Your task to perform on an android device: turn off improve location accuracy Image 0: 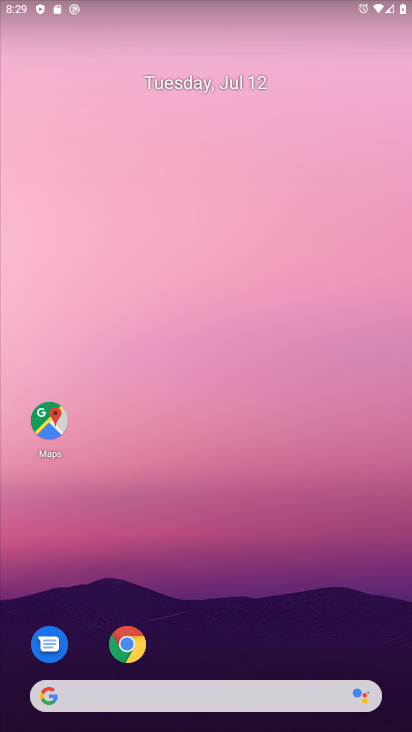
Step 0: drag from (25, 712) to (356, 54)
Your task to perform on an android device: turn off improve location accuracy Image 1: 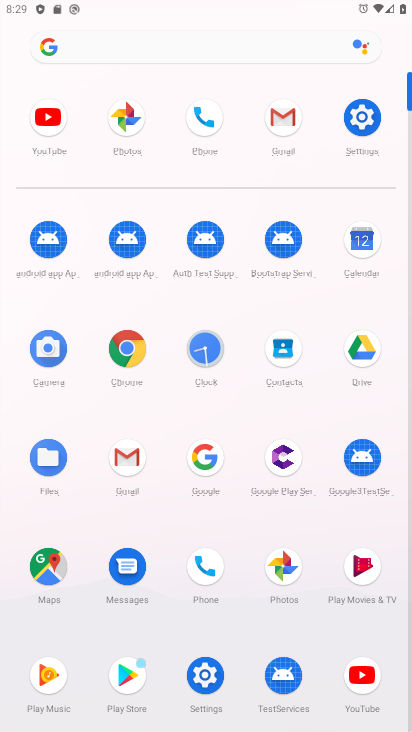
Step 1: click (203, 674)
Your task to perform on an android device: turn off improve location accuracy Image 2: 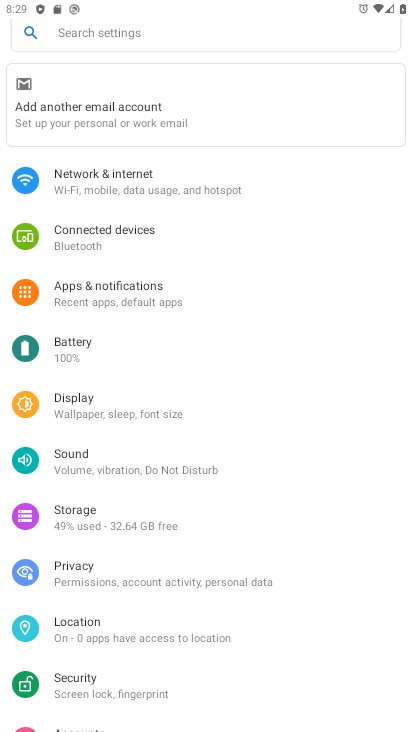
Step 2: click (87, 624)
Your task to perform on an android device: turn off improve location accuracy Image 3: 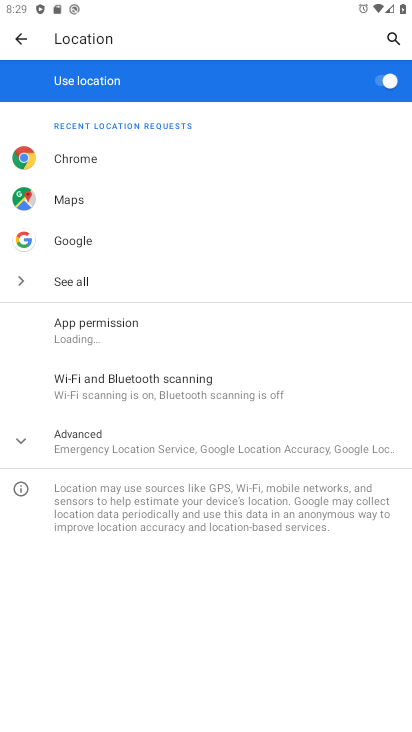
Step 3: click (103, 436)
Your task to perform on an android device: turn off improve location accuracy Image 4: 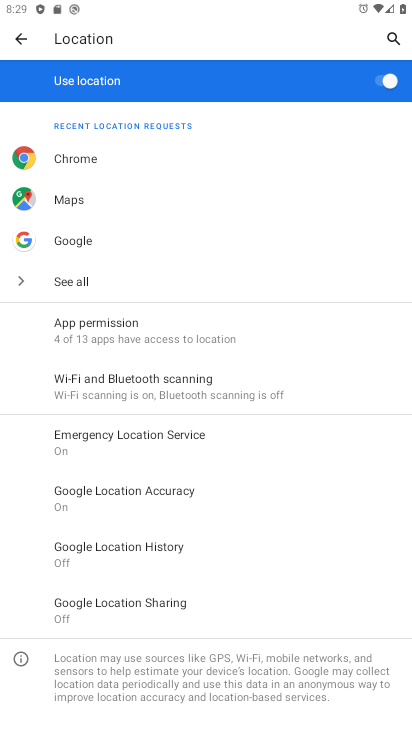
Step 4: click (102, 505)
Your task to perform on an android device: turn off improve location accuracy Image 5: 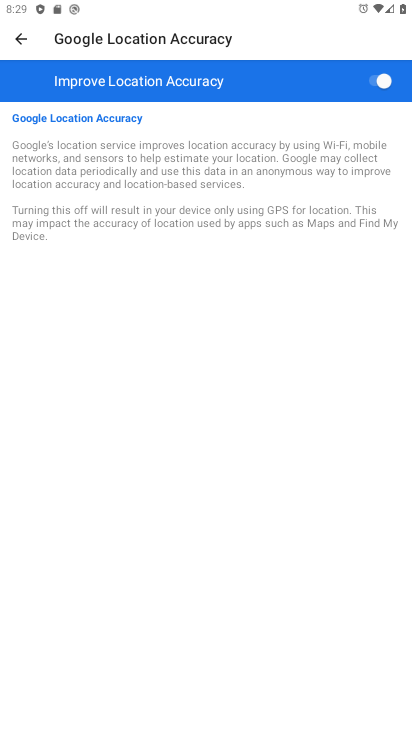
Step 5: click (379, 84)
Your task to perform on an android device: turn off improve location accuracy Image 6: 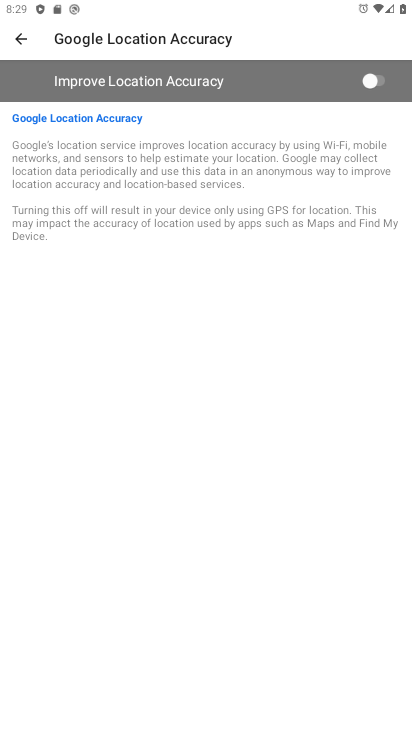
Step 6: task complete